Your task to perform on an android device: Add dell xps to the cart on costco, then select checkout. Image 0: 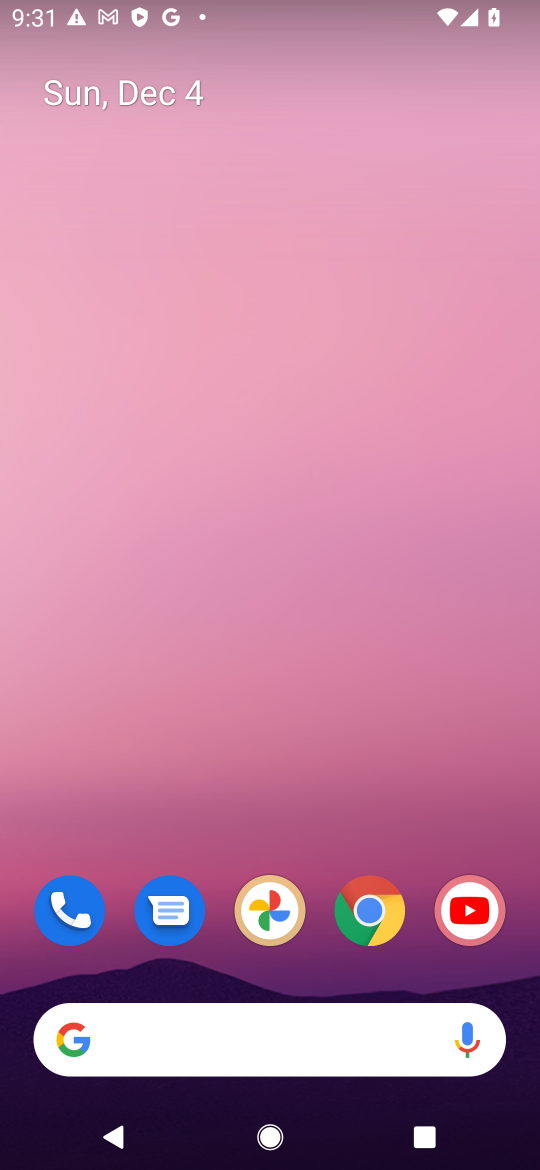
Step 0: drag from (349, 1098) to (520, 15)
Your task to perform on an android device: Add dell xps to the cart on costco, then select checkout. Image 1: 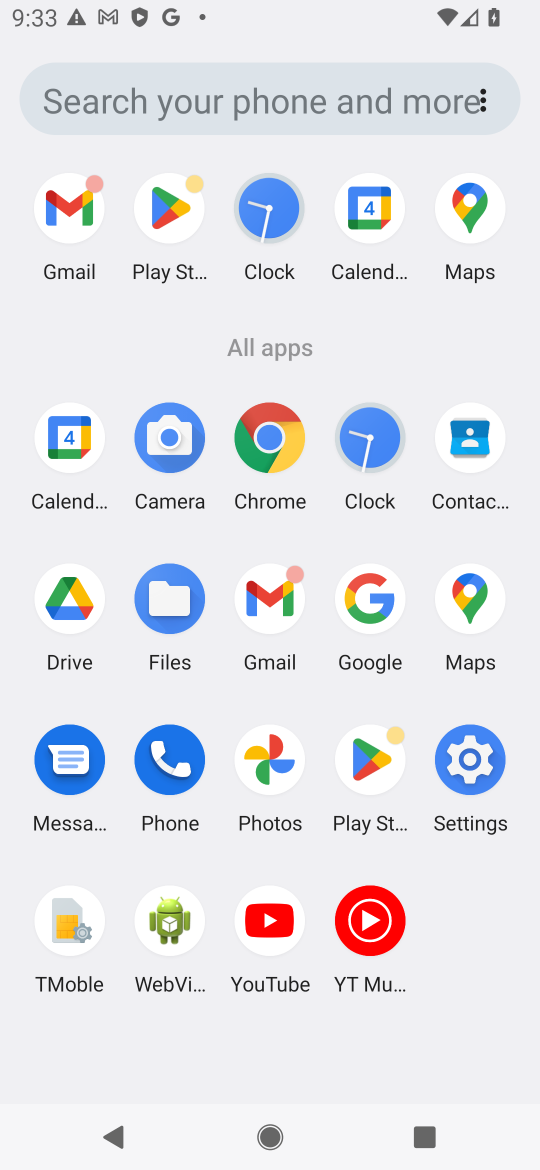
Step 1: click (271, 427)
Your task to perform on an android device: Add dell xps to the cart on costco, then select checkout. Image 2: 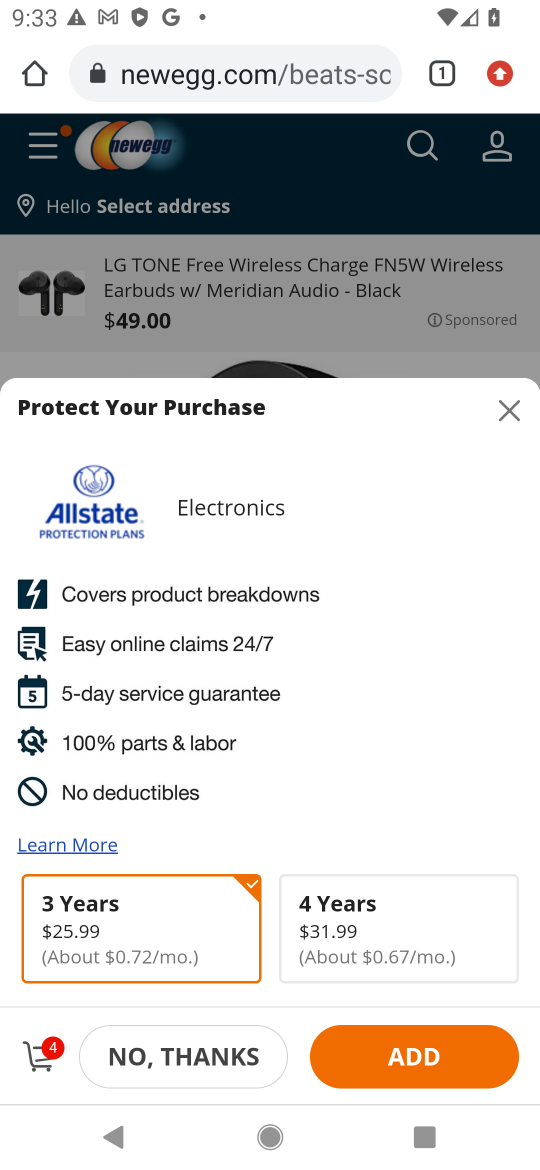
Step 2: click (184, 77)
Your task to perform on an android device: Add dell xps to the cart on costco, then select checkout. Image 3: 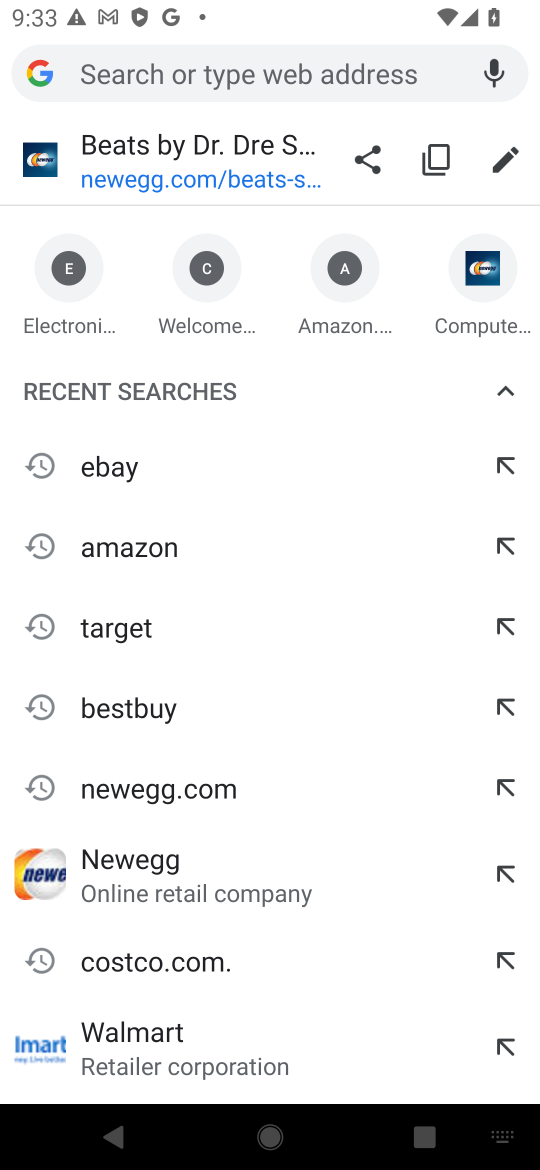
Step 3: type "costco"
Your task to perform on an android device: Add dell xps to the cart on costco, then select checkout. Image 4: 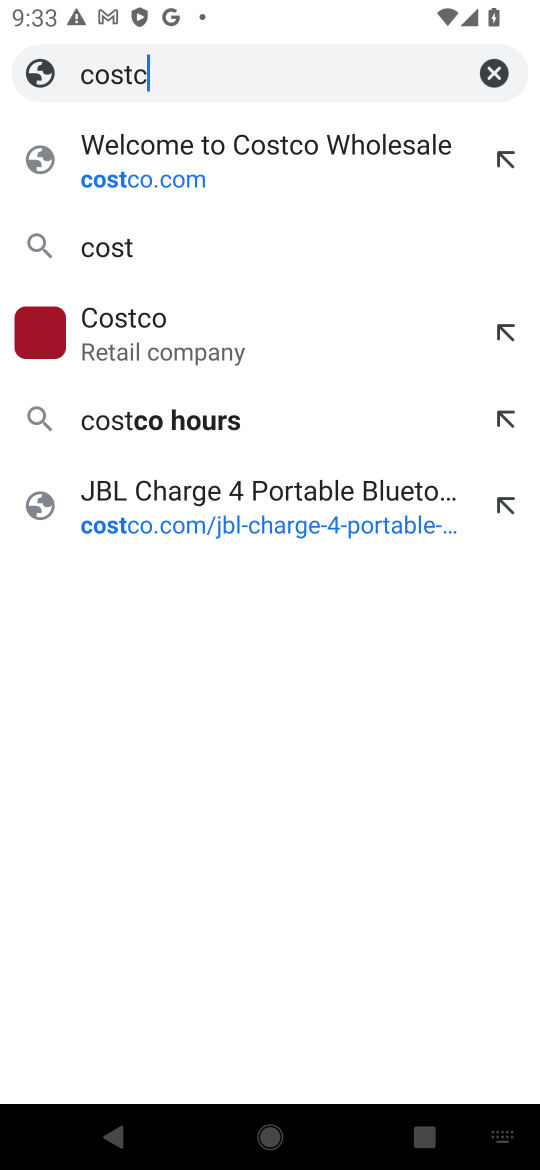
Step 4: type ""
Your task to perform on an android device: Add dell xps to the cart on costco, then select checkout. Image 5: 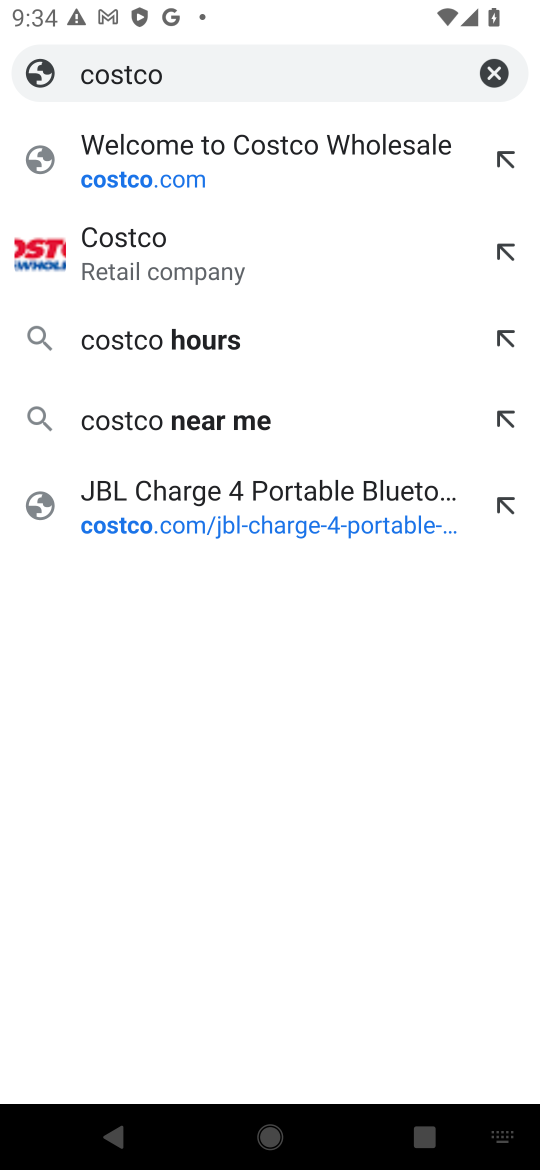
Step 5: click (135, 175)
Your task to perform on an android device: Add dell xps to the cart on costco, then select checkout. Image 6: 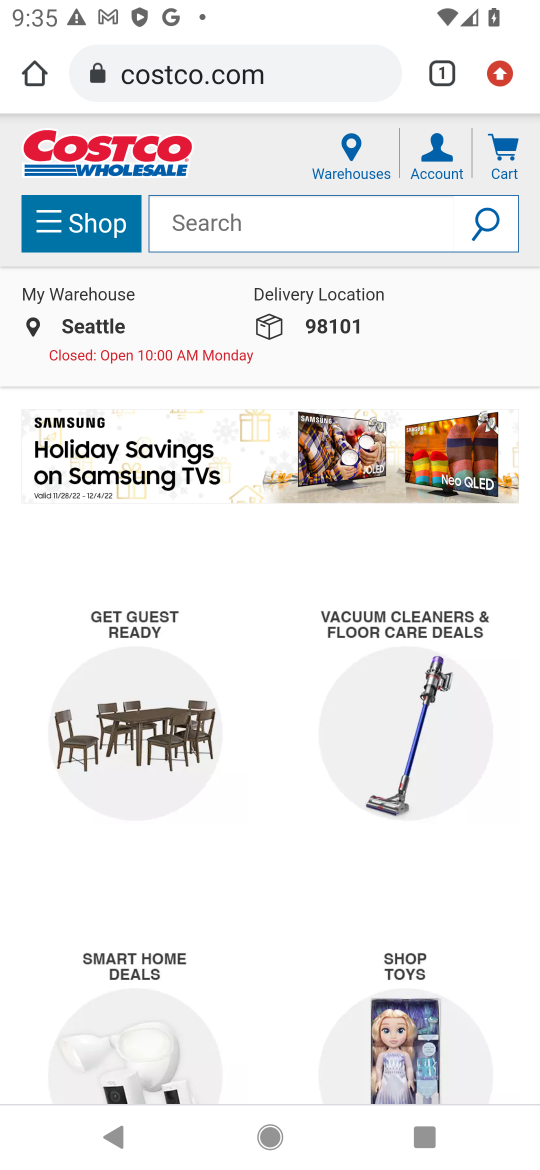
Step 6: type "dell xps"
Your task to perform on an android device: Add dell xps to the cart on costco, then select checkout. Image 7: 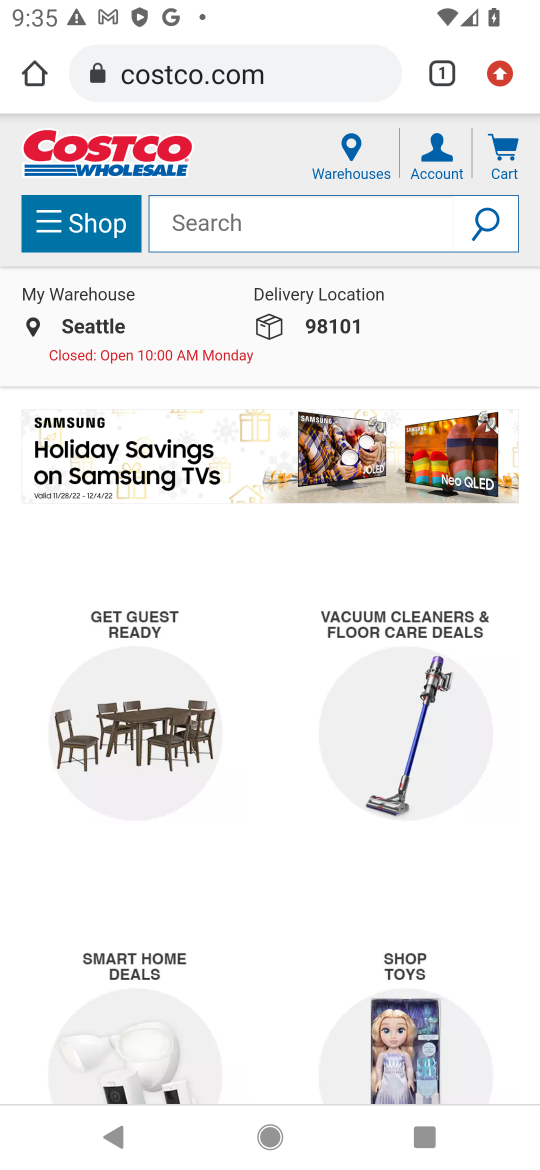
Step 7: type ""
Your task to perform on an android device: Add dell xps to the cart on costco, then select checkout. Image 8: 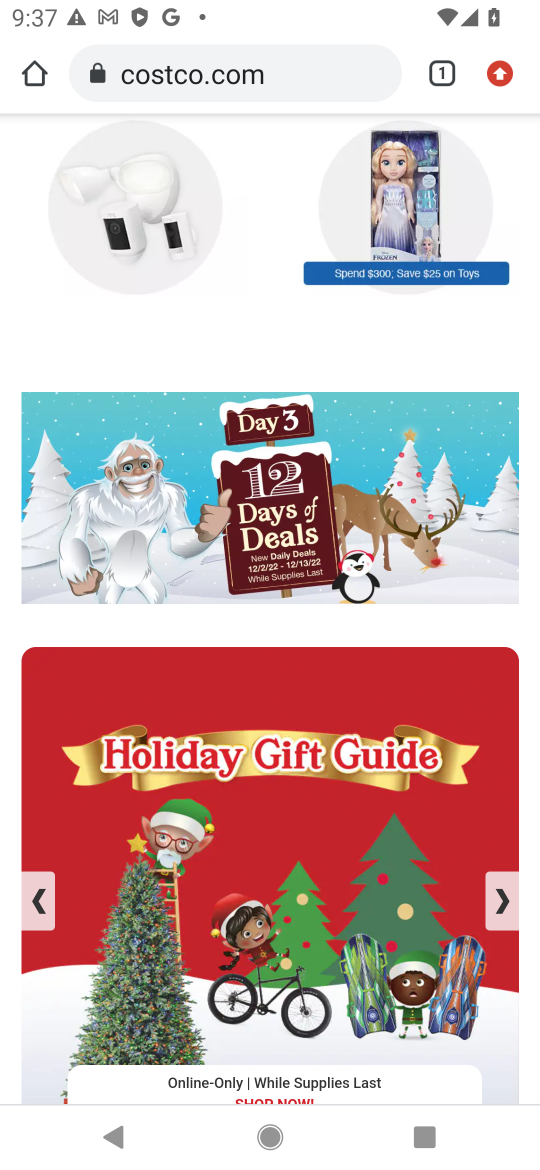
Step 8: drag from (235, 276) to (115, 1098)
Your task to perform on an android device: Add dell xps to the cart on costco, then select checkout. Image 9: 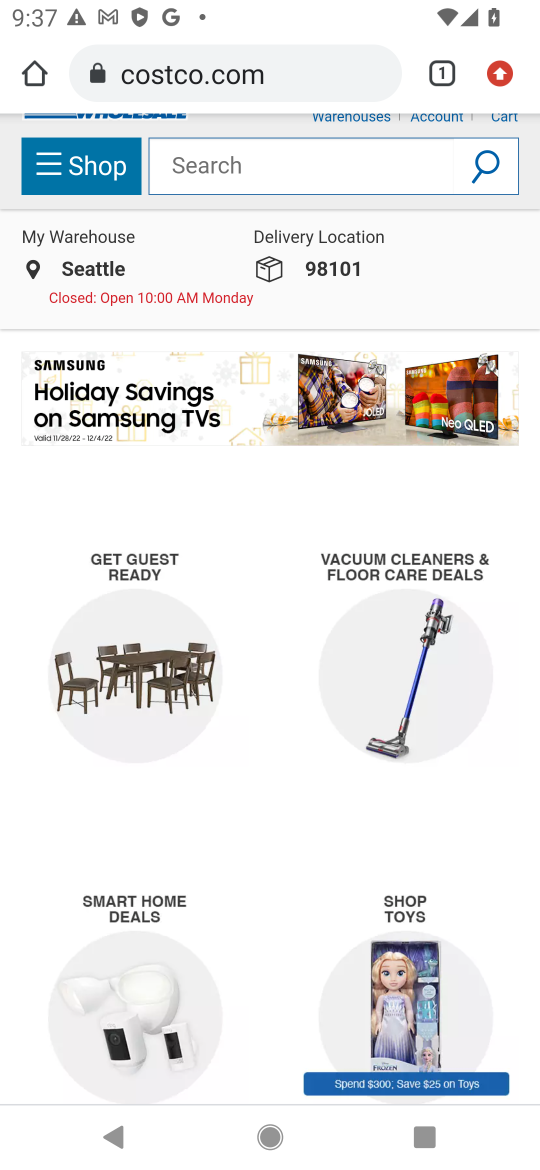
Step 9: click (279, 153)
Your task to perform on an android device: Add dell xps to the cart on costco, then select checkout. Image 10: 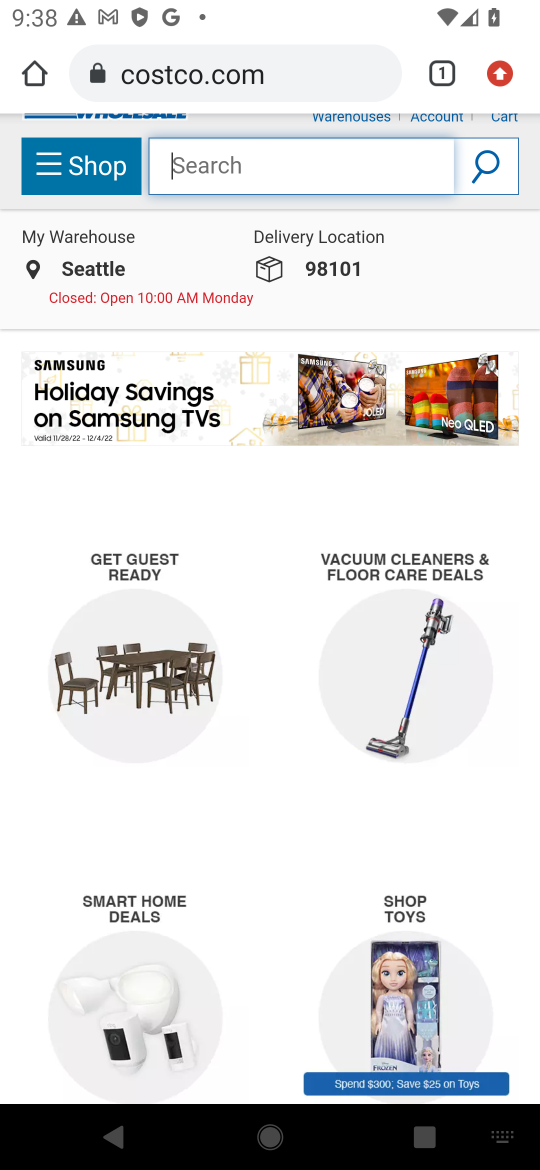
Step 10: task complete